Your task to perform on an android device: turn off location Image 0: 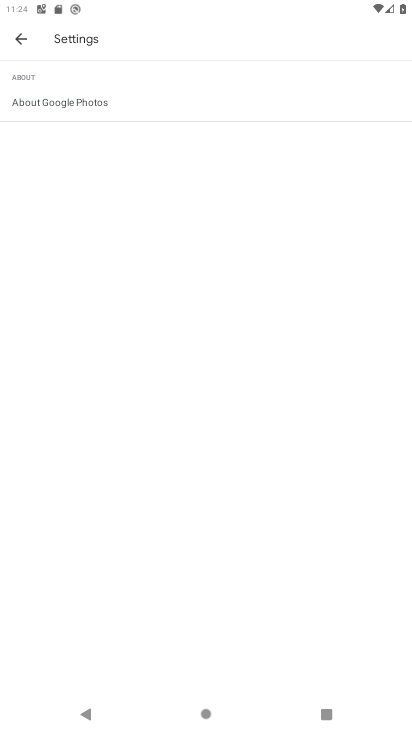
Step 0: press home button
Your task to perform on an android device: turn off location Image 1: 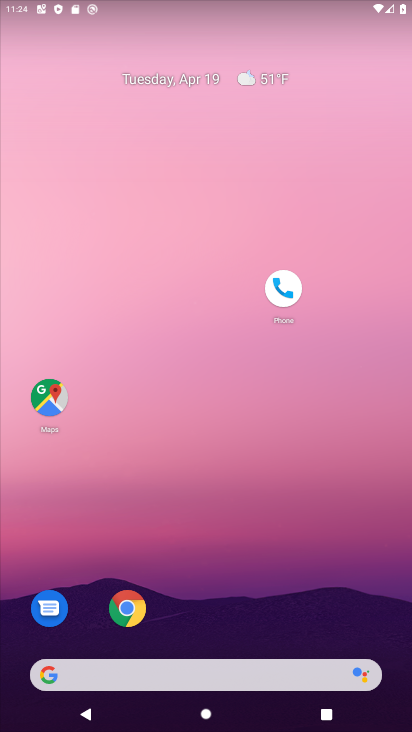
Step 1: drag from (215, 606) to (217, 209)
Your task to perform on an android device: turn off location Image 2: 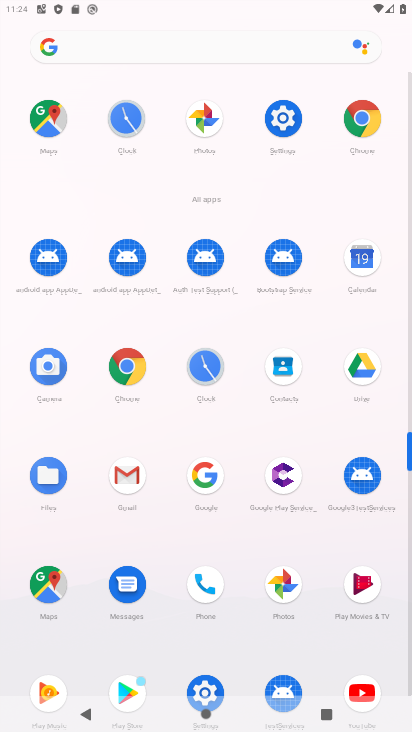
Step 2: click (208, 687)
Your task to perform on an android device: turn off location Image 3: 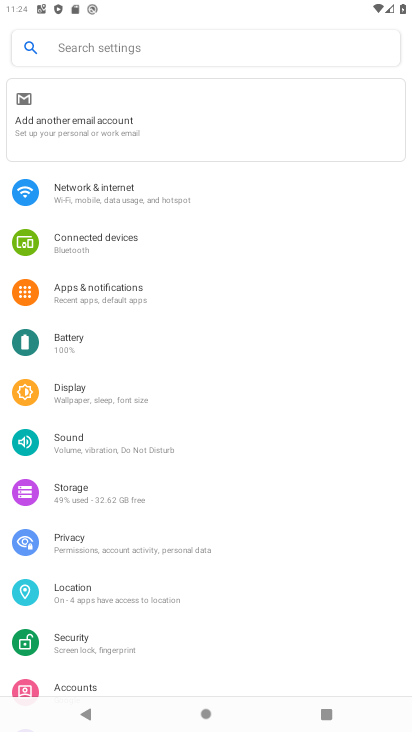
Step 3: click (106, 592)
Your task to perform on an android device: turn off location Image 4: 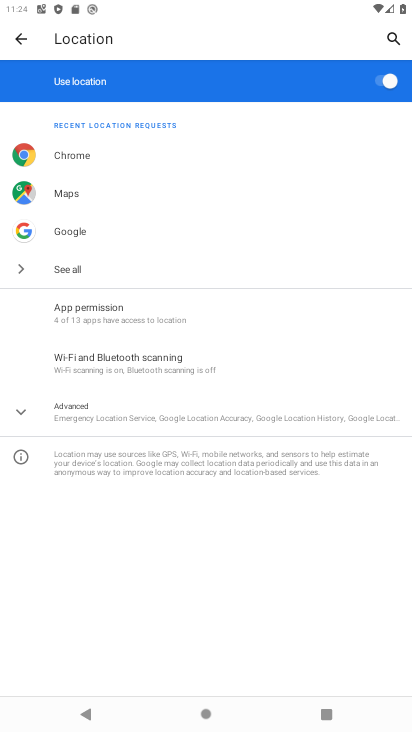
Step 4: click (381, 85)
Your task to perform on an android device: turn off location Image 5: 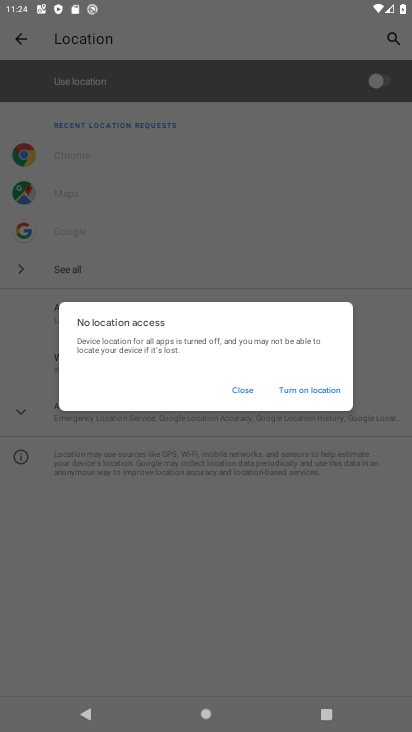
Step 5: task complete